Your task to perform on an android device: See recent photos Image 0: 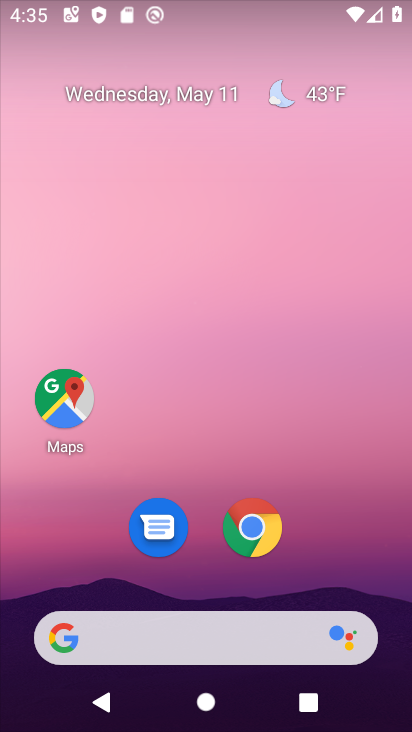
Step 0: drag from (93, 602) to (189, 215)
Your task to perform on an android device: See recent photos Image 1: 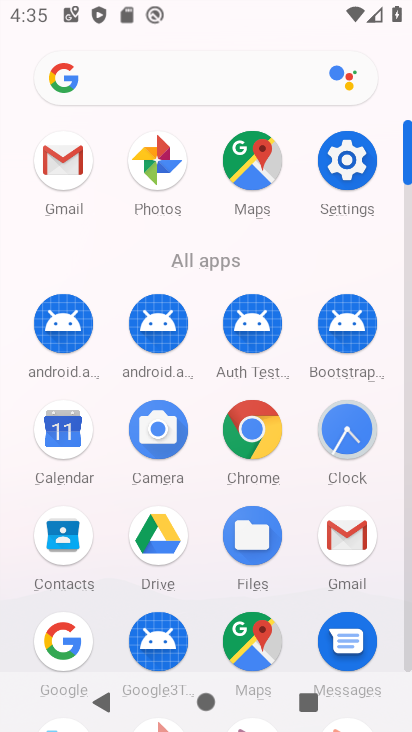
Step 1: drag from (192, 635) to (216, 467)
Your task to perform on an android device: See recent photos Image 2: 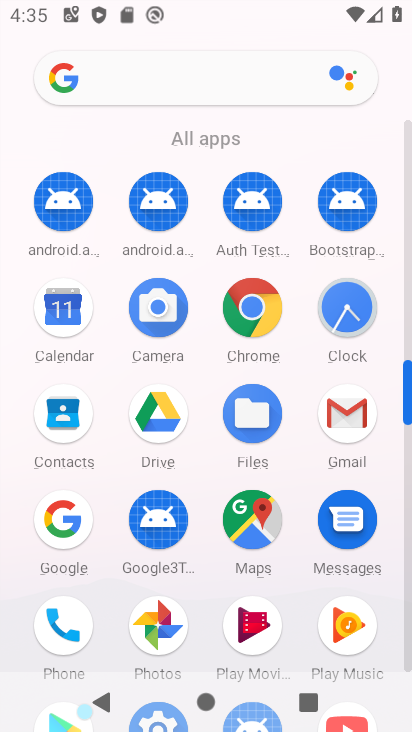
Step 2: click (157, 635)
Your task to perform on an android device: See recent photos Image 3: 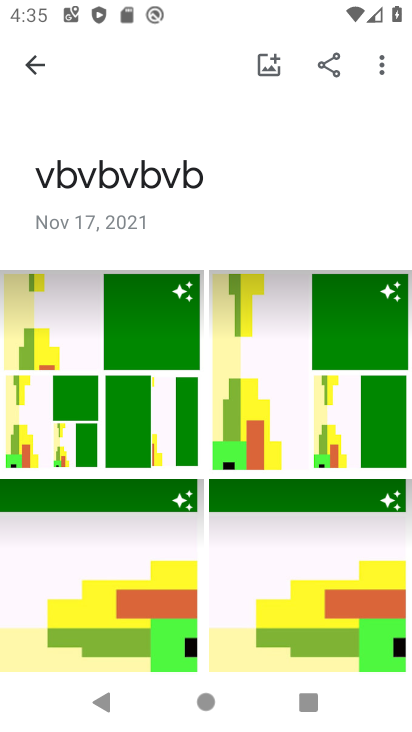
Step 3: click (51, 76)
Your task to perform on an android device: See recent photos Image 4: 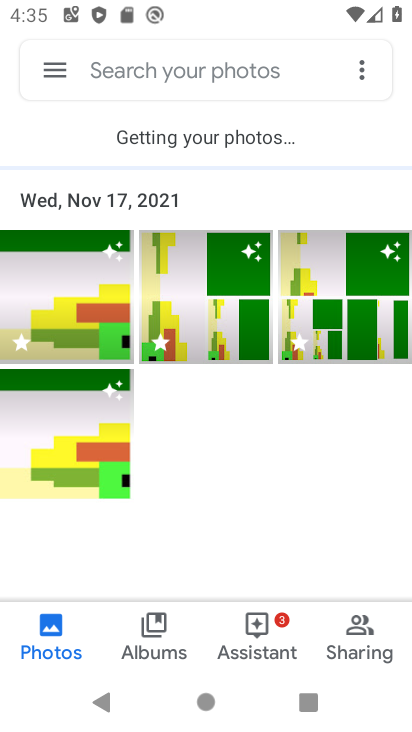
Step 4: task complete